Your task to perform on an android device: Open notification settings Image 0: 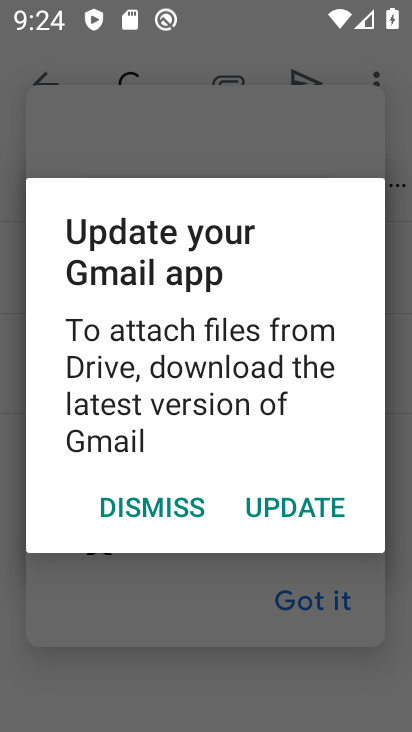
Step 0: press home button
Your task to perform on an android device: Open notification settings Image 1: 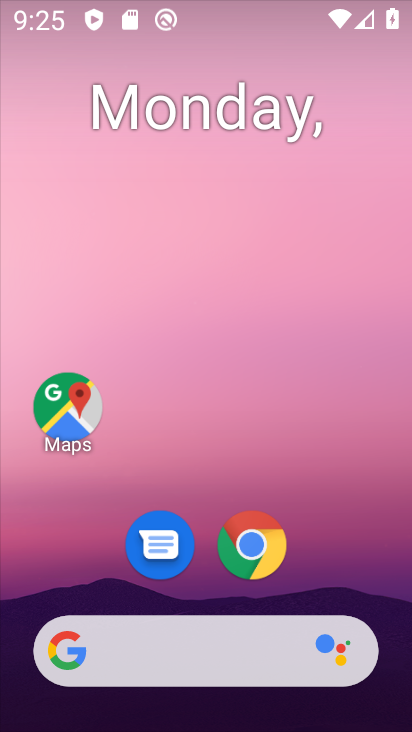
Step 1: drag from (17, 634) to (336, 160)
Your task to perform on an android device: Open notification settings Image 2: 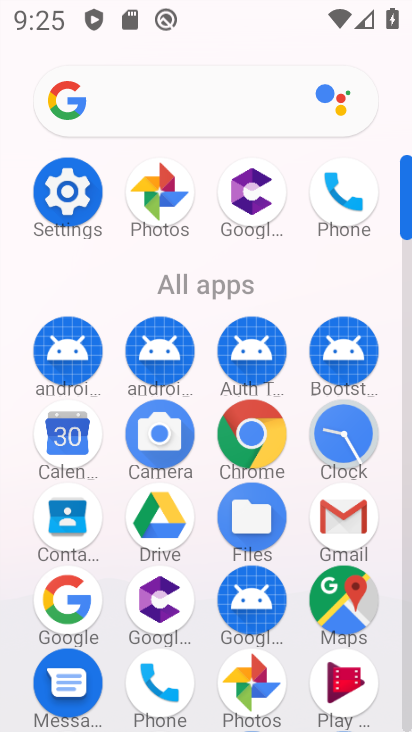
Step 2: click (91, 195)
Your task to perform on an android device: Open notification settings Image 3: 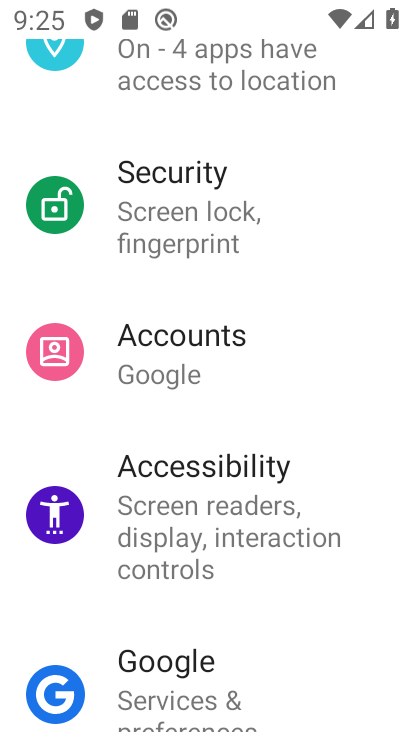
Step 3: task complete